Your task to perform on an android device: stop showing notifications on the lock screen Image 0: 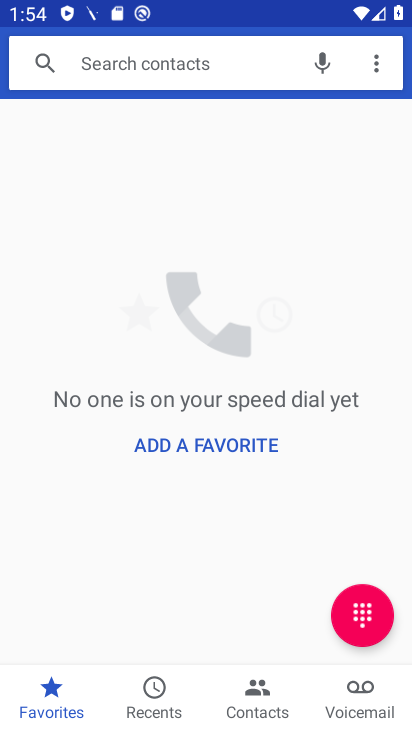
Step 0: press back button
Your task to perform on an android device: stop showing notifications on the lock screen Image 1: 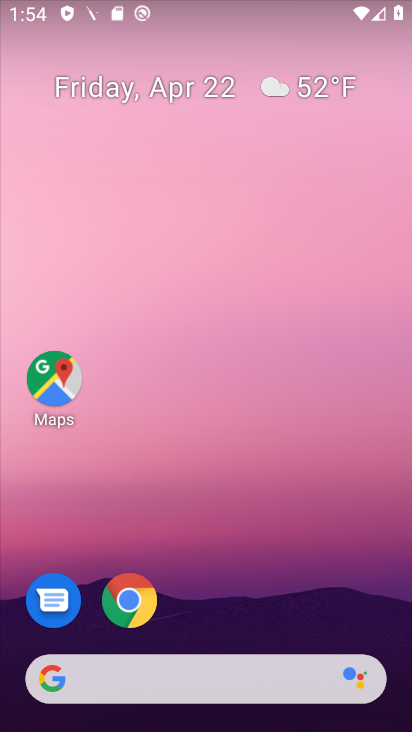
Step 1: drag from (312, 571) to (245, 56)
Your task to perform on an android device: stop showing notifications on the lock screen Image 2: 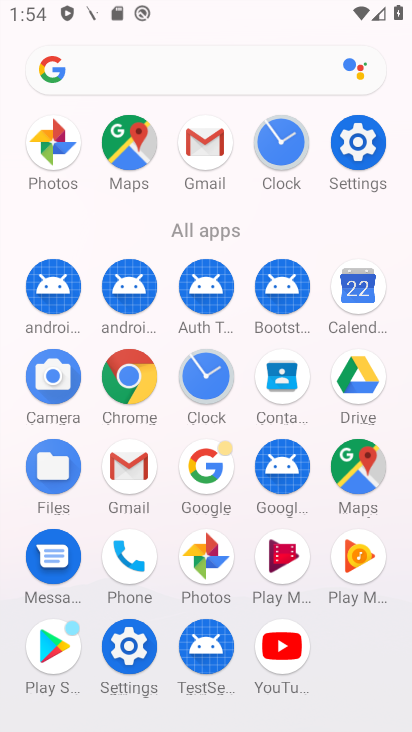
Step 2: click (363, 141)
Your task to perform on an android device: stop showing notifications on the lock screen Image 3: 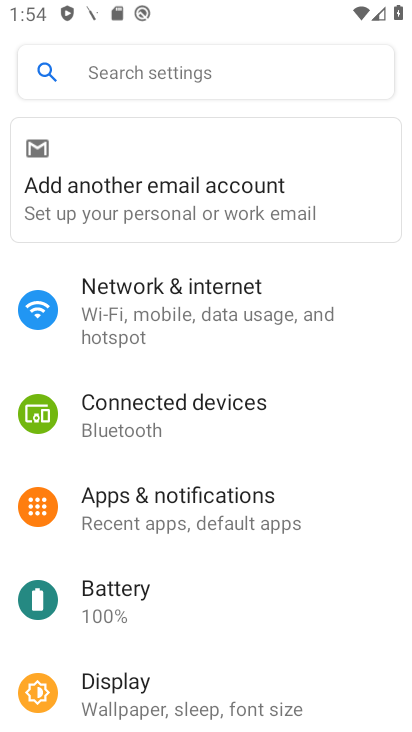
Step 3: drag from (349, 463) to (320, 181)
Your task to perform on an android device: stop showing notifications on the lock screen Image 4: 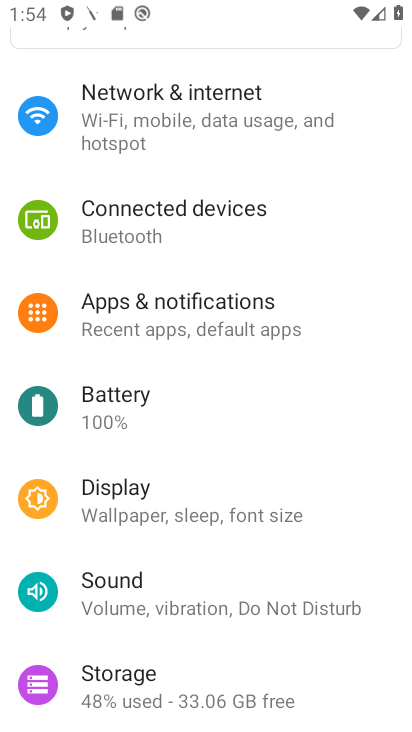
Step 4: drag from (337, 461) to (334, 228)
Your task to perform on an android device: stop showing notifications on the lock screen Image 5: 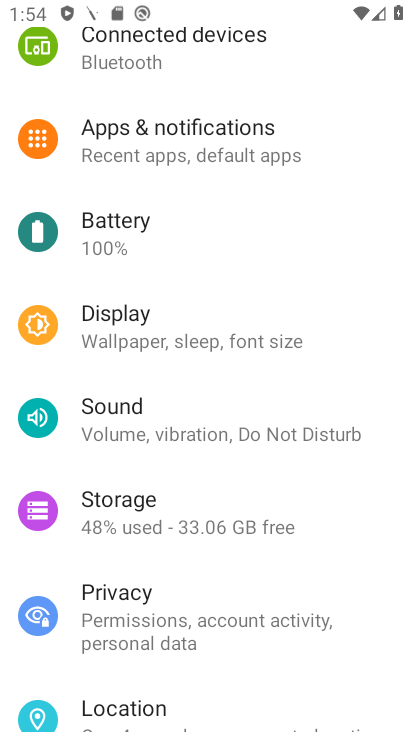
Step 5: drag from (305, 508) to (307, 208)
Your task to perform on an android device: stop showing notifications on the lock screen Image 6: 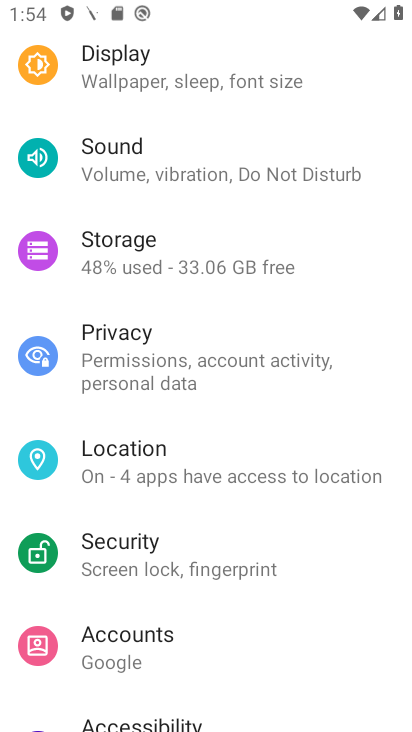
Step 6: drag from (234, 517) to (236, 272)
Your task to perform on an android device: stop showing notifications on the lock screen Image 7: 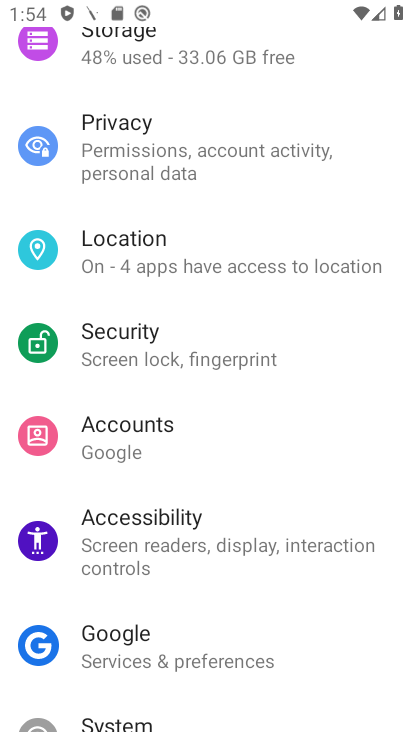
Step 7: drag from (322, 585) to (333, 284)
Your task to perform on an android device: stop showing notifications on the lock screen Image 8: 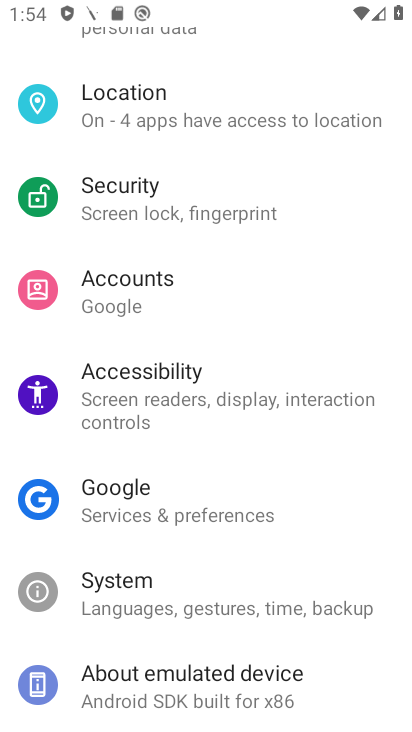
Step 8: drag from (273, 138) to (209, 544)
Your task to perform on an android device: stop showing notifications on the lock screen Image 9: 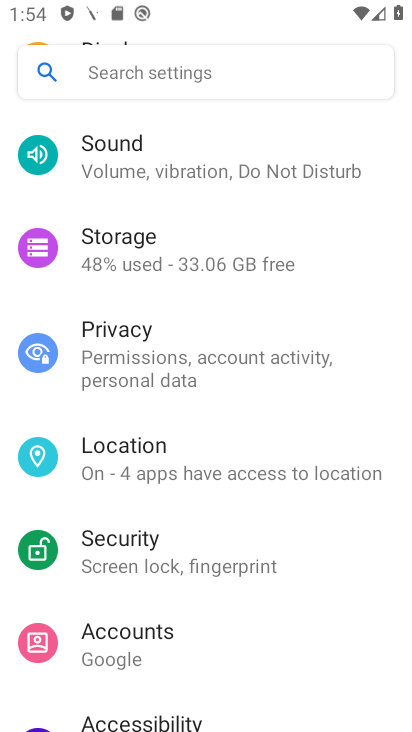
Step 9: drag from (245, 209) to (266, 609)
Your task to perform on an android device: stop showing notifications on the lock screen Image 10: 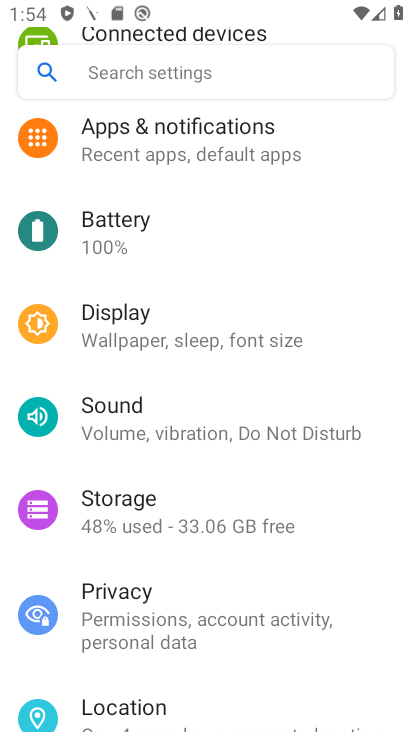
Step 10: click (247, 139)
Your task to perform on an android device: stop showing notifications on the lock screen Image 11: 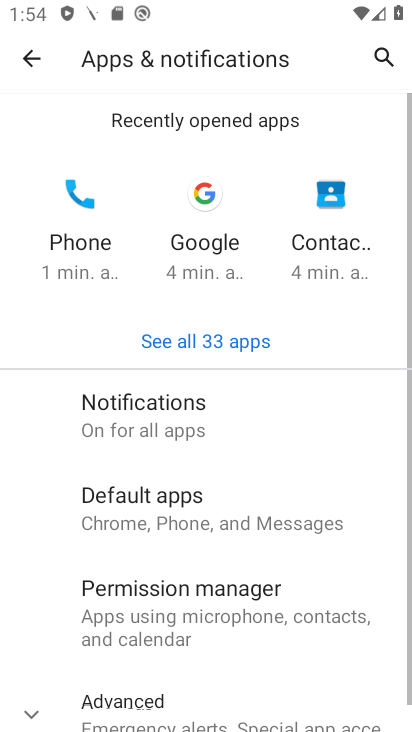
Step 11: drag from (275, 511) to (266, 231)
Your task to perform on an android device: stop showing notifications on the lock screen Image 12: 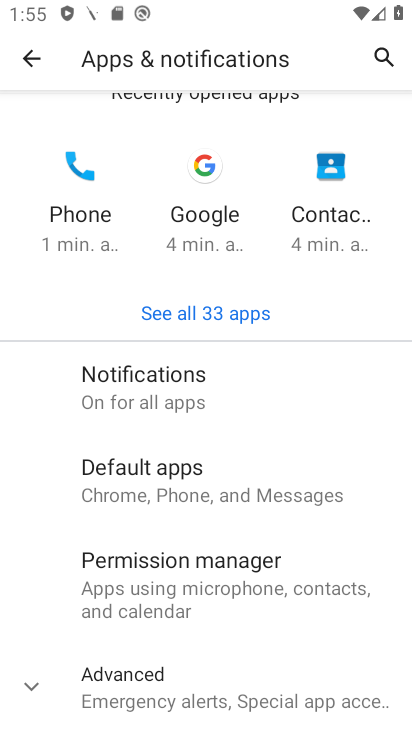
Step 12: click (221, 398)
Your task to perform on an android device: stop showing notifications on the lock screen Image 13: 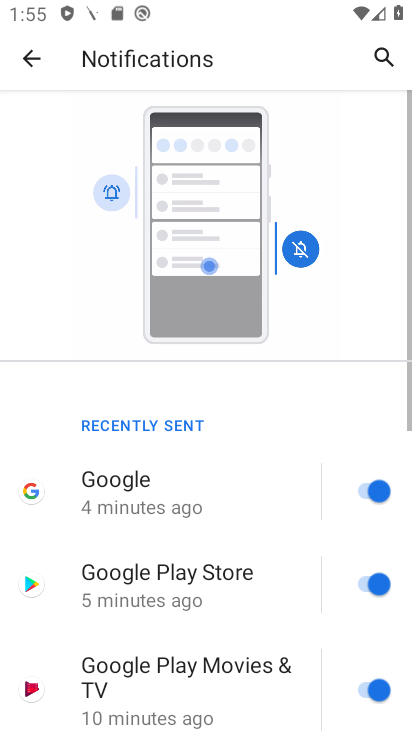
Step 13: drag from (265, 583) to (261, 170)
Your task to perform on an android device: stop showing notifications on the lock screen Image 14: 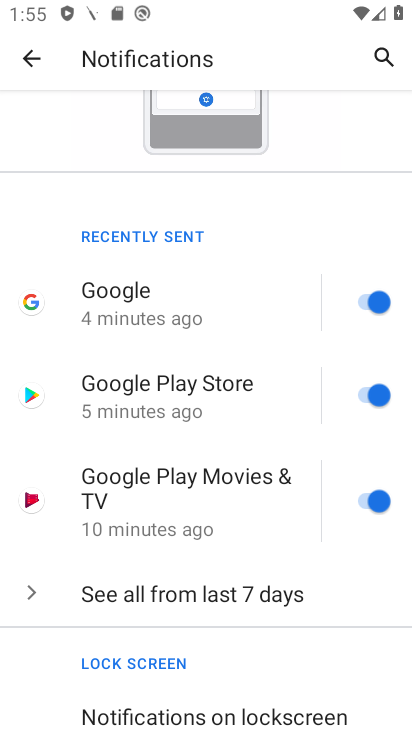
Step 14: drag from (233, 600) to (171, 213)
Your task to perform on an android device: stop showing notifications on the lock screen Image 15: 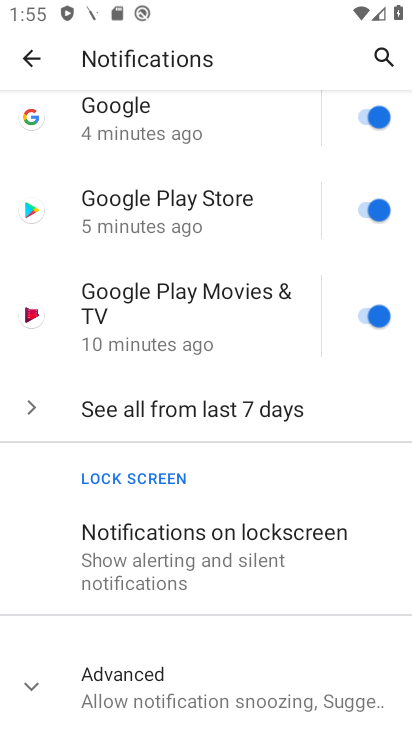
Step 15: drag from (206, 533) to (237, 185)
Your task to perform on an android device: stop showing notifications on the lock screen Image 16: 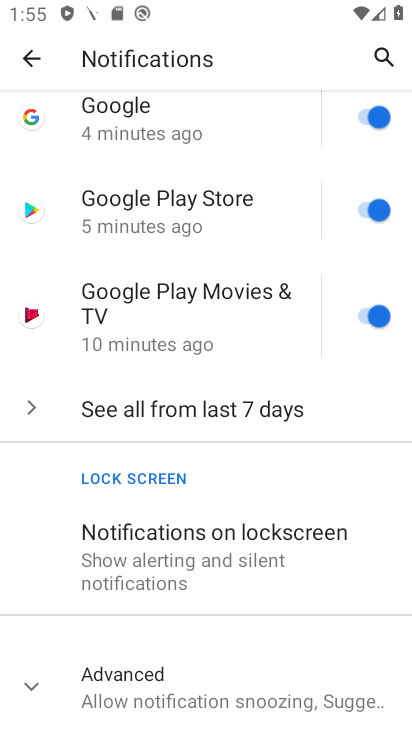
Step 16: click (67, 678)
Your task to perform on an android device: stop showing notifications on the lock screen Image 17: 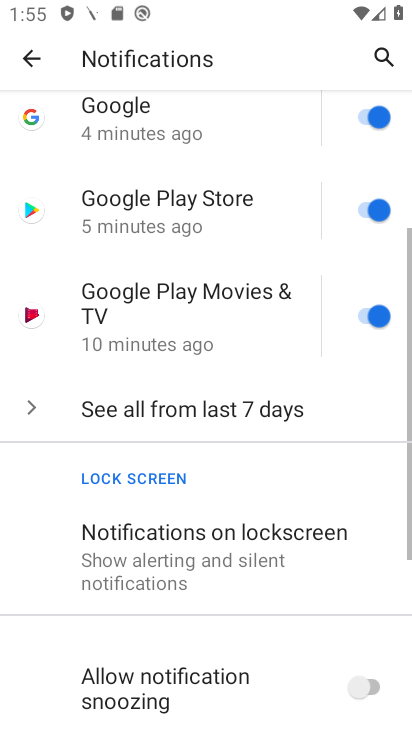
Step 17: drag from (203, 638) to (236, 239)
Your task to perform on an android device: stop showing notifications on the lock screen Image 18: 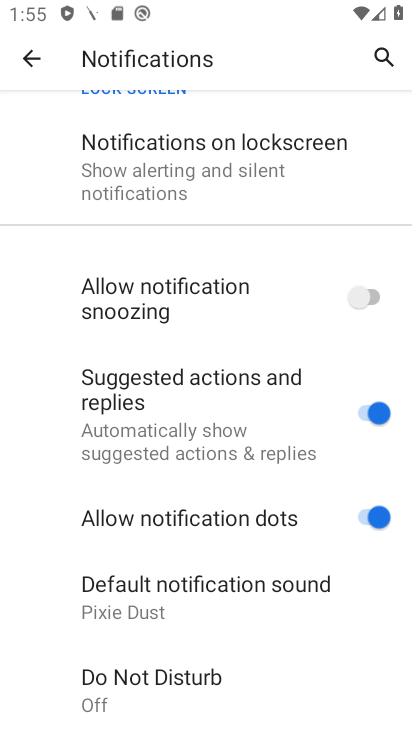
Step 18: click (192, 187)
Your task to perform on an android device: stop showing notifications on the lock screen Image 19: 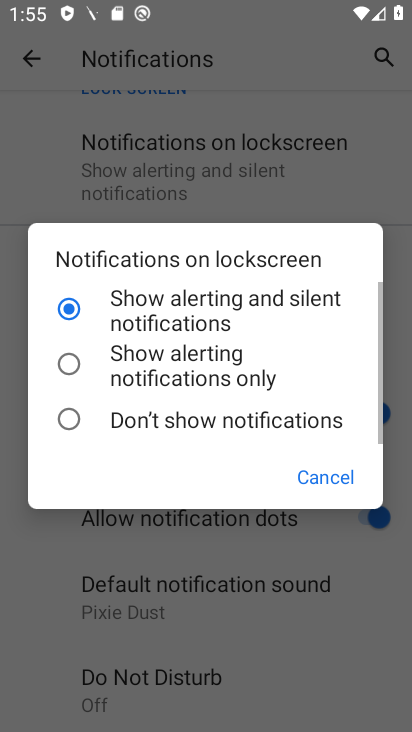
Step 19: click (178, 410)
Your task to perform on an android device: stop showing notifications on the lock screen Image 20: 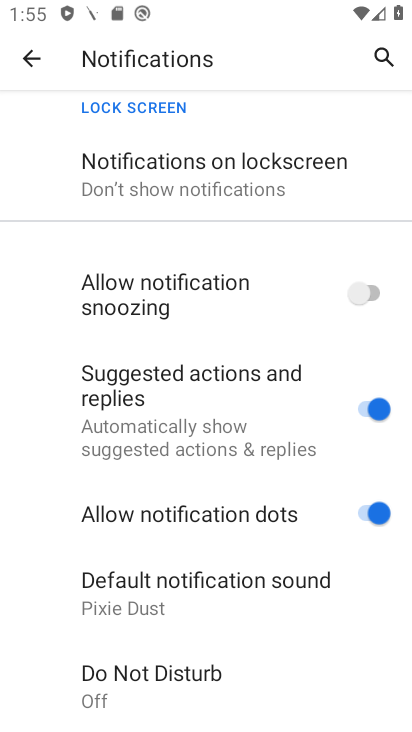
Step 20: task complete